Your task to perform on an android device: check android version Image 0: 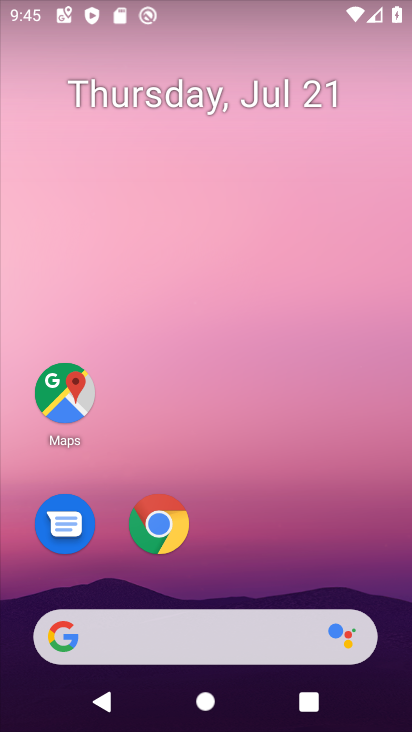
Step 0: drag from (161, 626) to (295, 95)
Your task to perform on an android device: check android version Image 1: 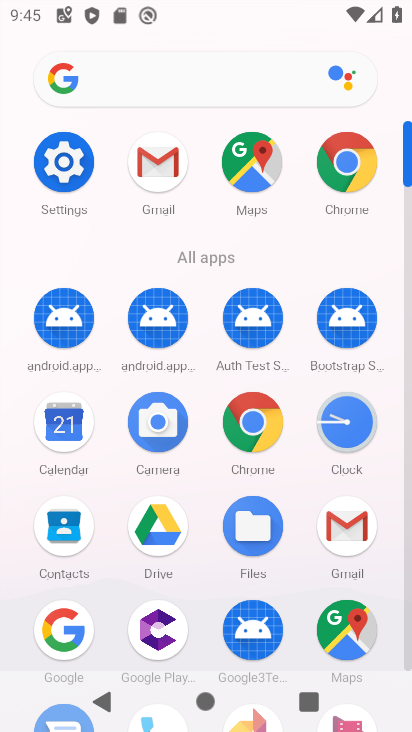
Step 1: click (75, 166)
Your task to perform on an android device: check android version Image 2: 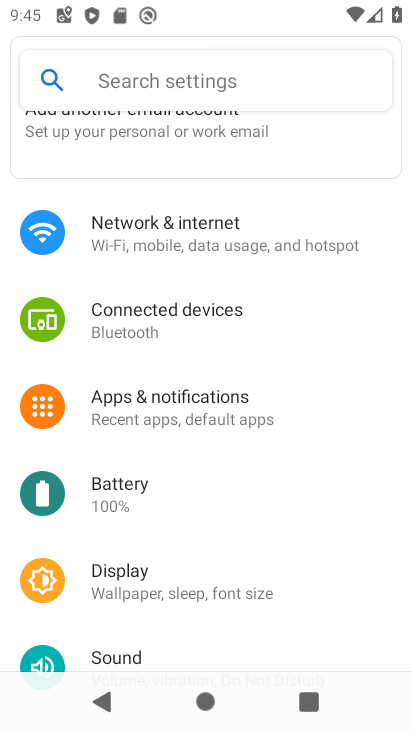
Step 2: drag from (221, 631) to (300, 79)
Your task to perform on an android device: check android version Image 3: 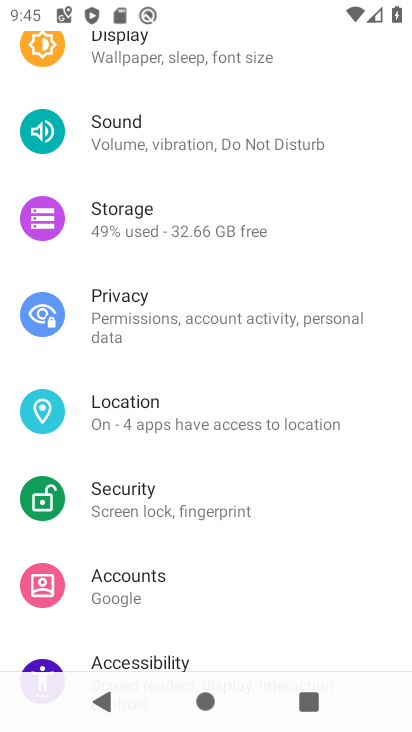
Step 3: drag from (204, 601) to (346, 105)
Your task to perform on an android device: check android version Image 4: 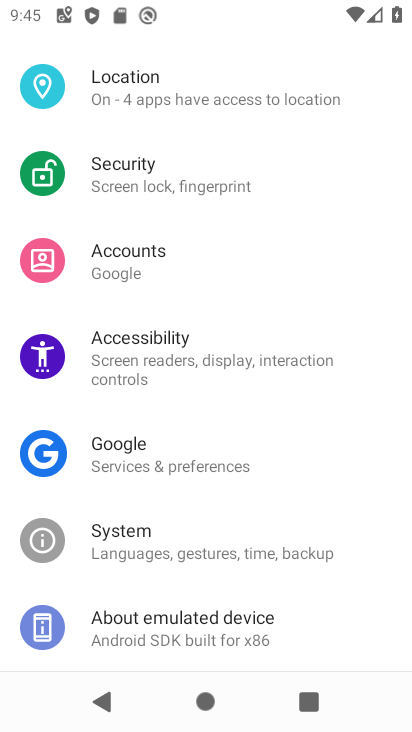
Step 4: click (168, 629)
Your task to perform on an android device: check android version Image 5: 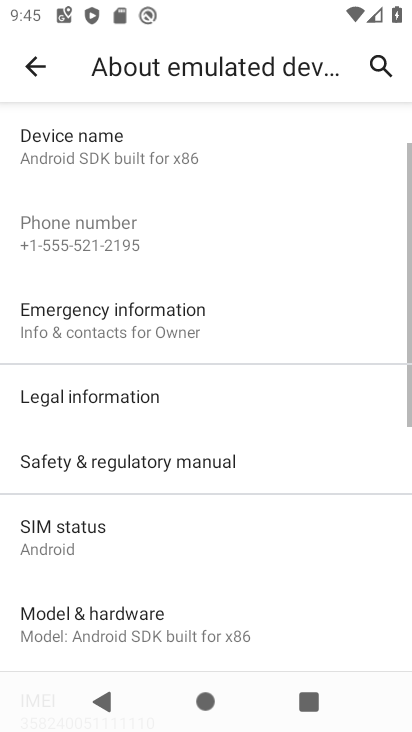
Step 5: drag from (206, 591) to (303, 161)
Your task to perform on an android device: check android version Image 6: 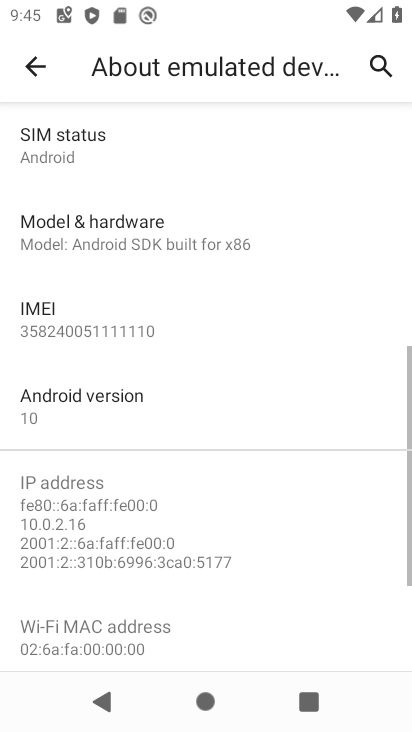
Step 6: click (94, 390)
Your task to perform on an android device: check android version Image 7: 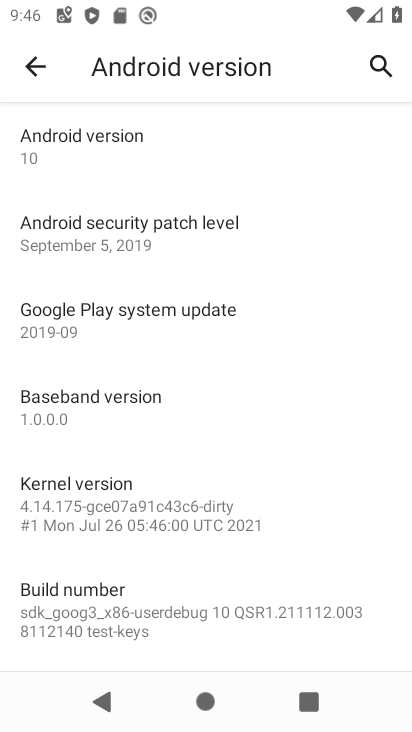
Step 7: task complete